Your task to perform on an android device: all mails in gmail Image 0: 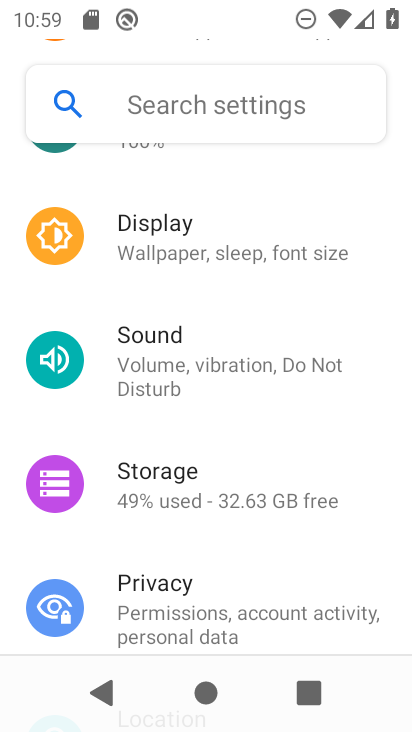
Step 0: press home button
Your task to perform on an android device: all mails in gmail Image 1: 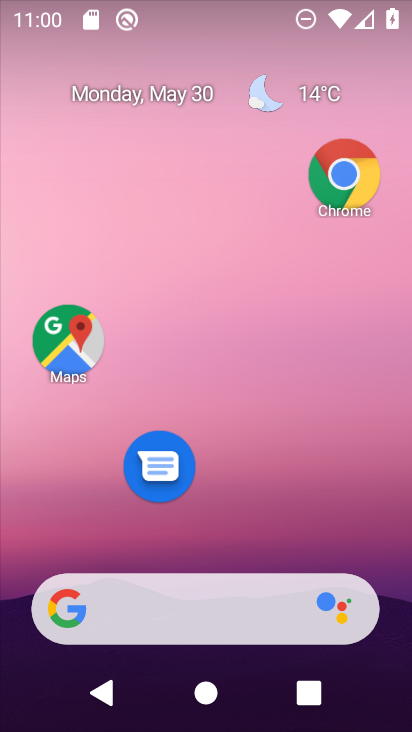
Step 1: drag from (281, 533) to (242, 7)
Your task to perform on an android device: all mails in gmail Image 2: 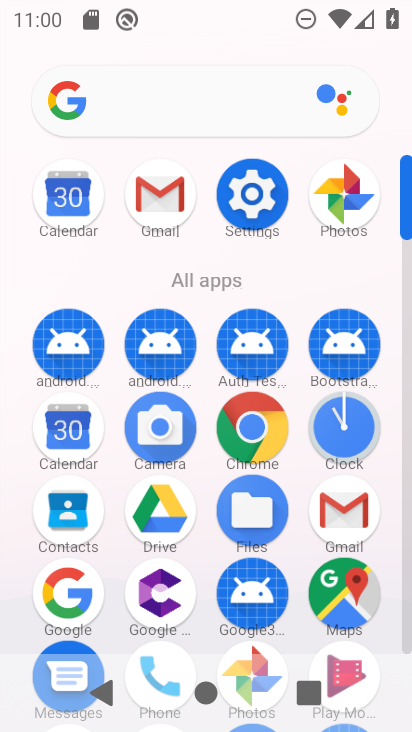
Step 2: click (170, 179)
Your task to perform on an android device: all mails in gmail Image 3: 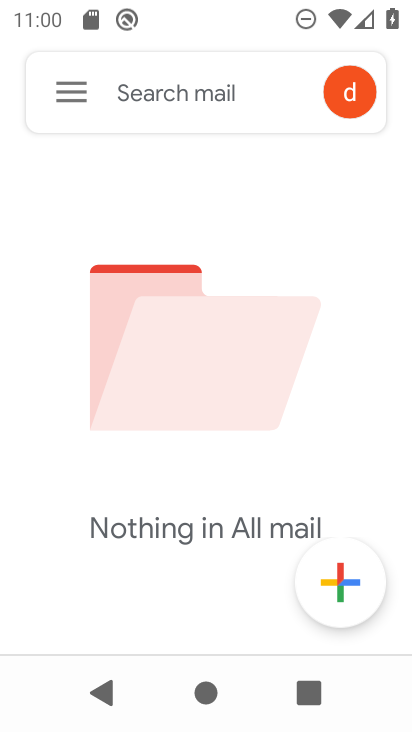
Step 3: click (72, 98)
Your task to perform on an android device: all mails in gmail Image 4: 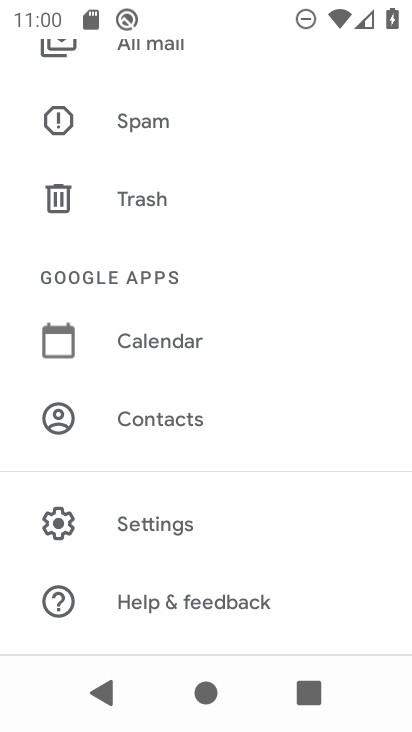
Step 4: click (106, 46)
Your task to perform on an android device: all mails in gmail Image 5: 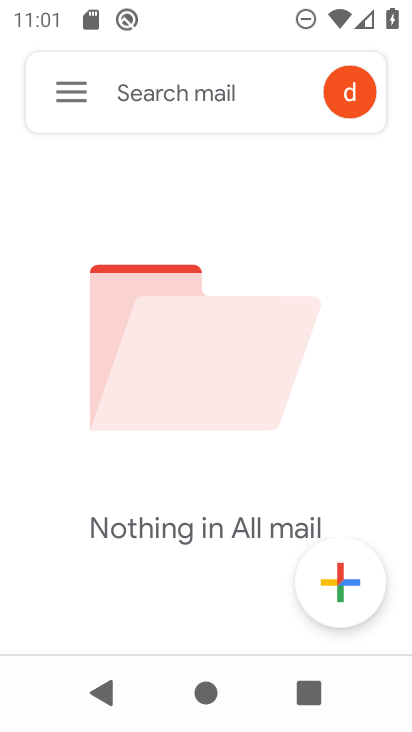
Step 5: task complete